Your task to perform on an android device: all mails in gmail Image 0: 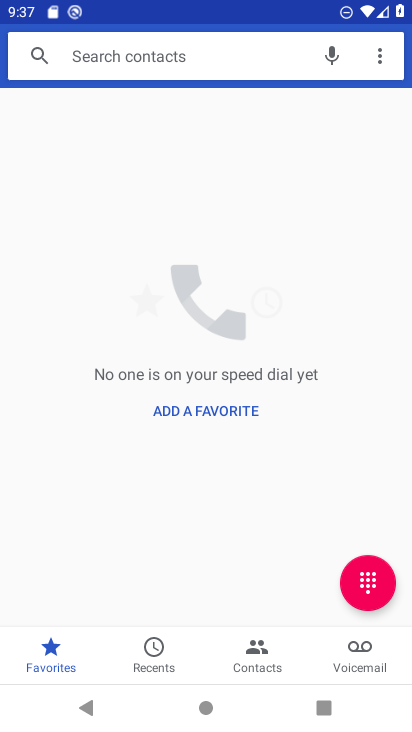
Step 0: press home button
Your task to perform on an android device: all mails in gmail Image 1: 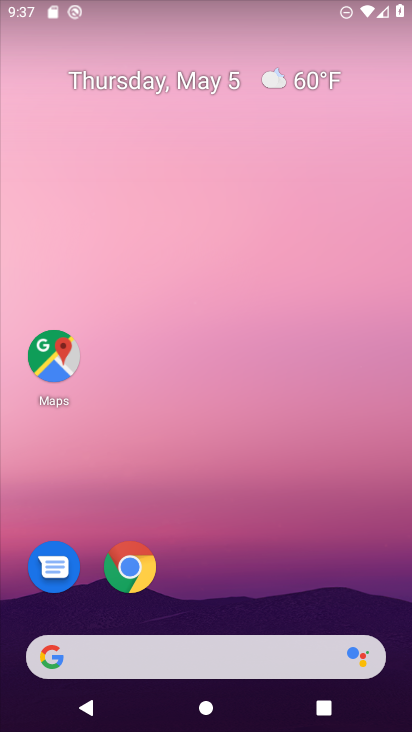
Step 1: drag from (224, 727) to (219, 223)
Your task to perform on an android device: all mails in gmail Image 2: 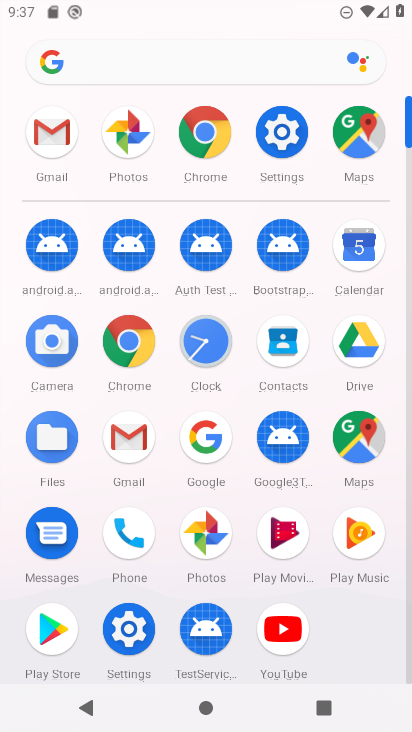
Step 2: click (131, 432)
Your task to perform on an android device: all mails in gmail Image 3: 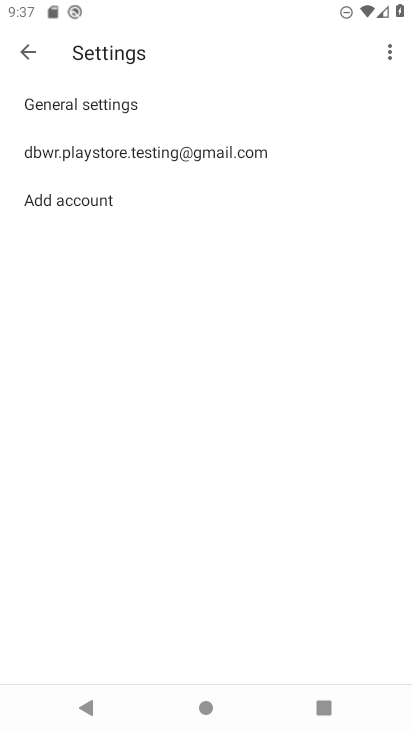
Step 3: click (27, 52)
Your task to perform on an android device: all mails in gmail Image 4: 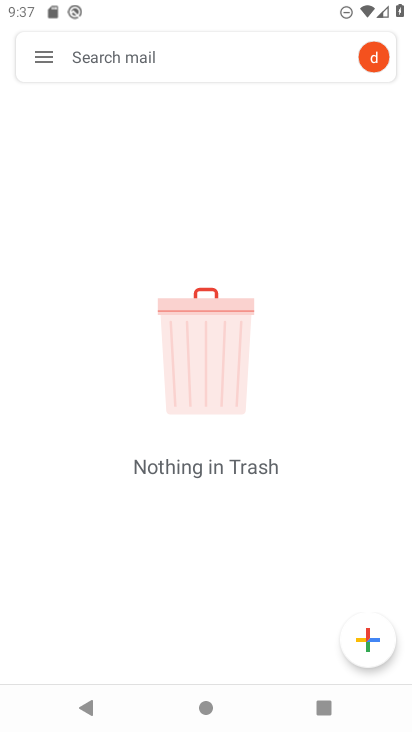
Step 4: click (38, 54)
Your task to perform on an android device: all mails in gmail Image 5: 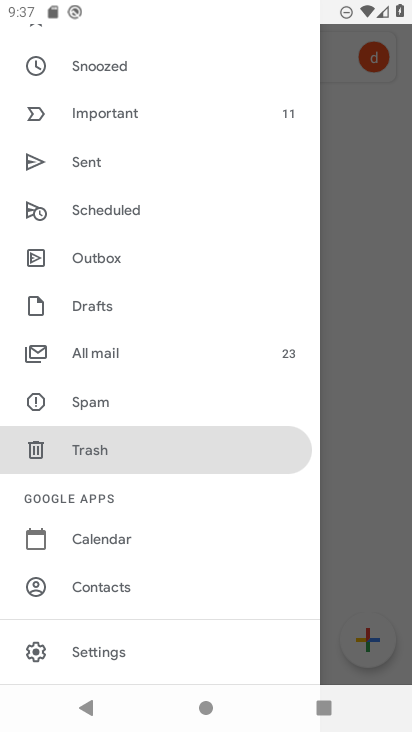
Step 5: drag from (154, 79) to (153, 557)
Your task to perform on an android device: all mails in gmail Image 6: 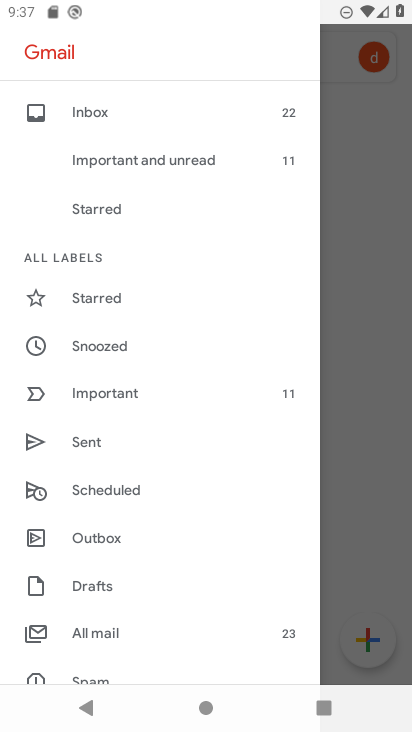
Step 6: click (90, 627)
Your task to perform on an android device: all mails in gmail Image 7: 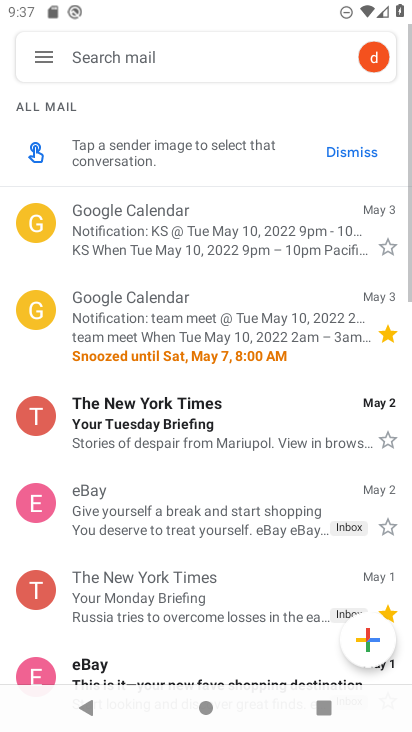
Step 7: task complete